Your task to perform on an android device: What's the weather going to be tomorrow? Image 0: 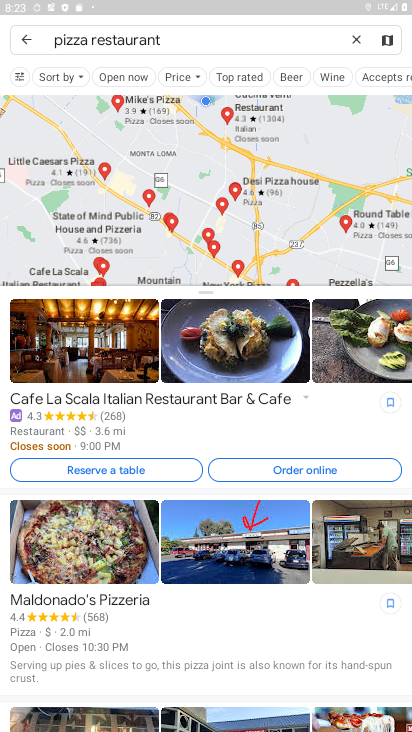
Step 0: press home button
Your task to perform on an android device: What's the weather going to be tomorrow? Image 1: 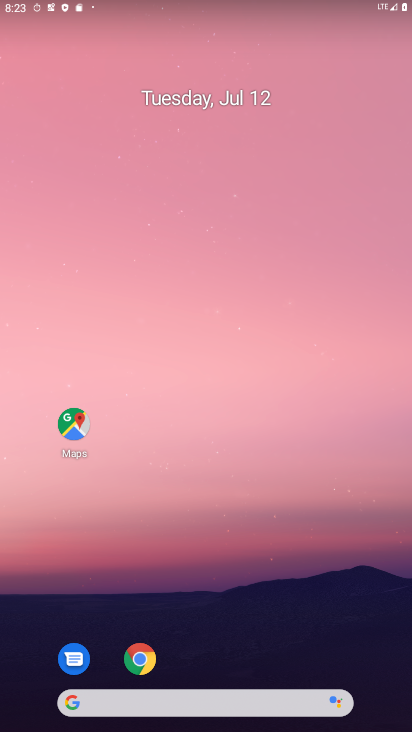
Step 1: drag from (356, 669) to (153, 3)
Your task to perform on an android device: What's the weather going to be tomorrow? Image 2: 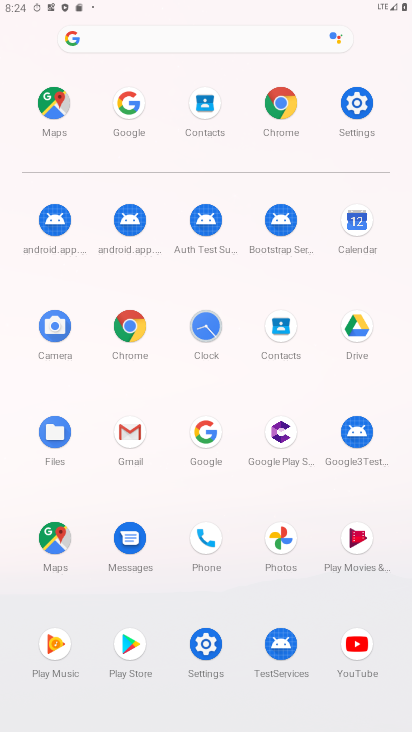
Step 2: click (206, 455)
Your task to perform on an android device: What's the weather going to be tomorrow? Image 3: 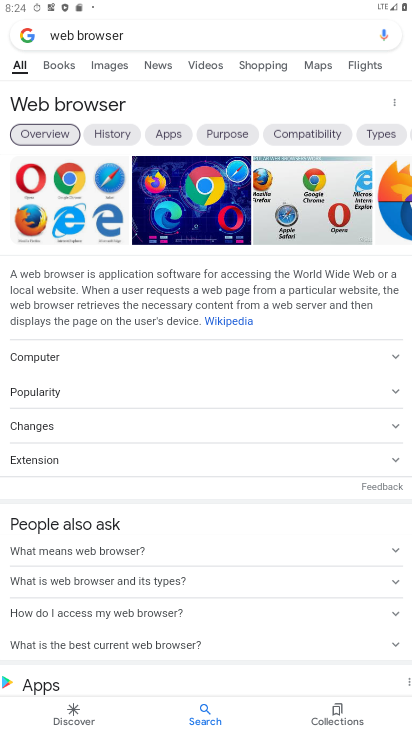
Step 3: press back button
Your task to perform on an android device: What's the weather going to be tomorrow? Image 4: 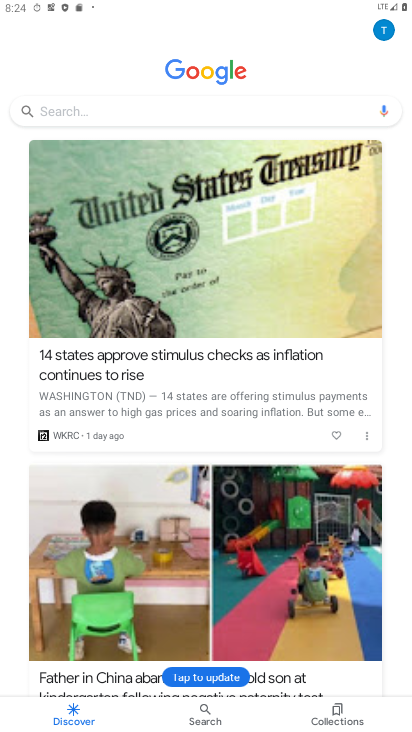
Step 4: click (91, 112)
Your task to perform on an android device: What's the weather going to be tomorrow? Image 5: 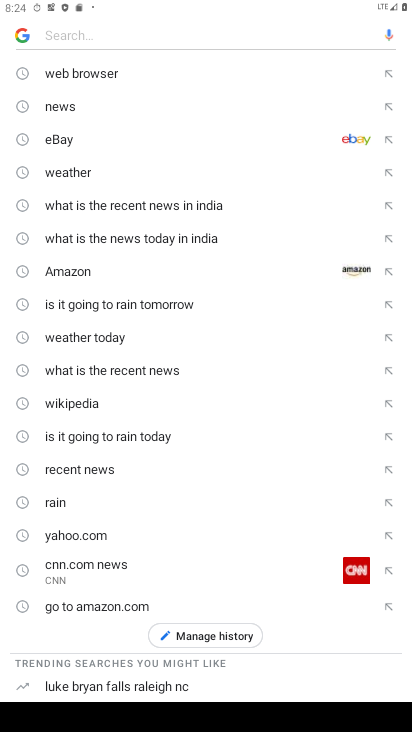
Step 5: type "What's the weather going to be tomorrow?"
Your task to perform on an android device: What's the weather going to be tomorrow? Image 6: 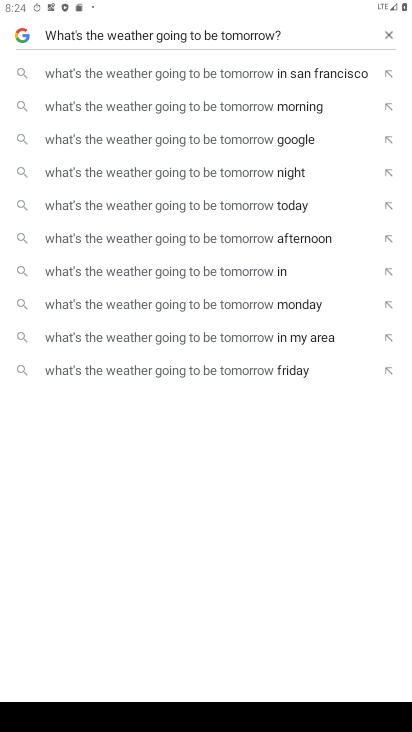
Step 6: click (224, 211)
Your task to perform on an android device: What's the weather going to be tomorrow? Image 7: 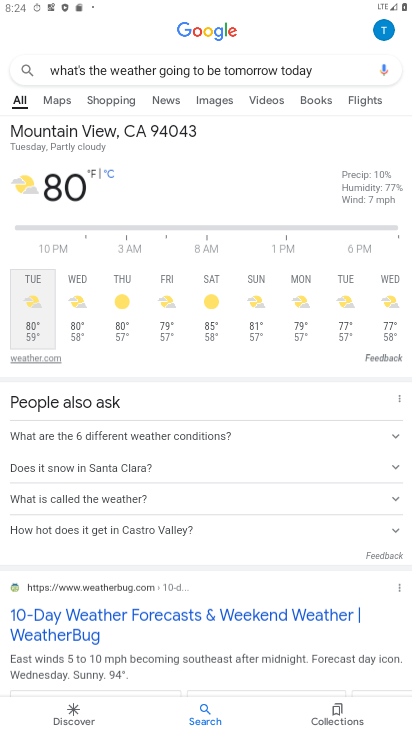
Step 7: task complete